Your task to perform on an android device: make emails show in primary in the gmail app Image 0: 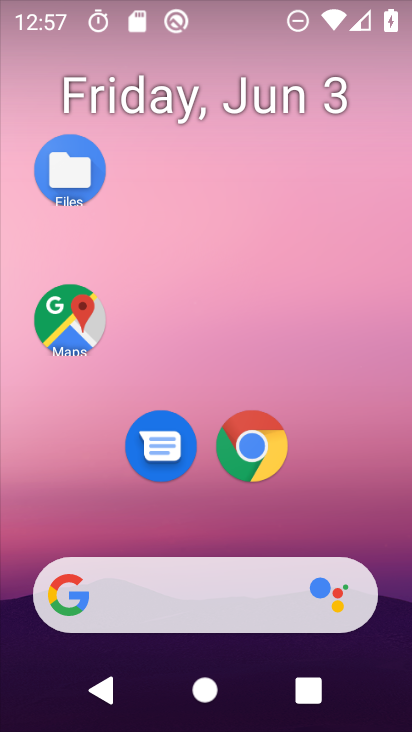
Step 0: drag from (242, 696) to (207, 182)
Your task to perform on an android device: make emails show in primary in the gmail app Image 1: 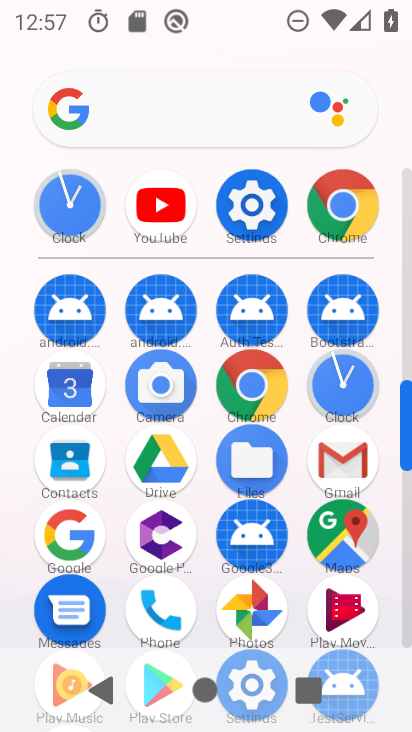
Step 1: drag from (234, 640) to (192, 112)
Your task to perform on an android device: make emails show in primary in the gmail app Image 2: 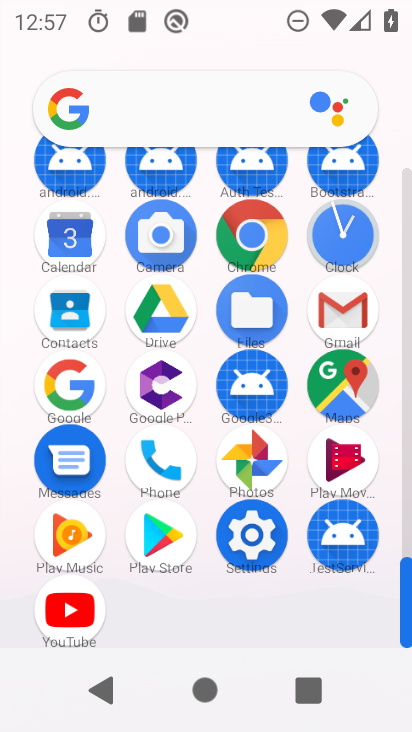
Step 2: click (352, 454)
Your task to perform on an android device: make emails show in primary in the gmail app Image 3: 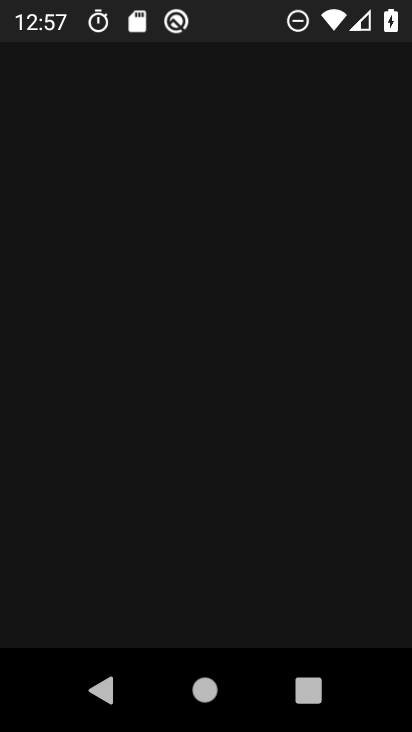
Step 3: click (349, 309)
Your task to perform on an android device: make emails show in primary in the gmail app Image 4: 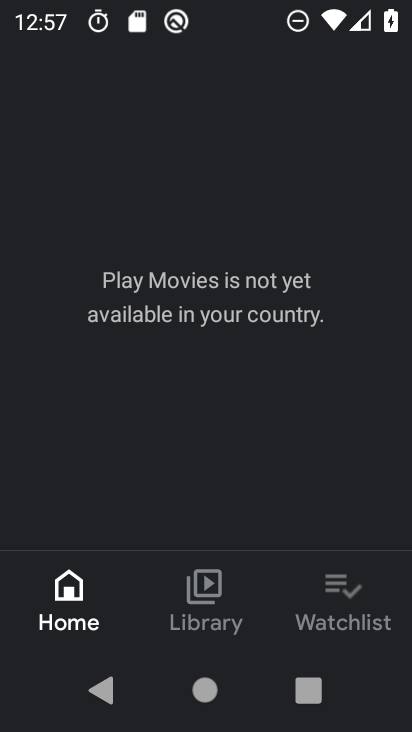
Step 4: press back button
Your task to perform on an android device: make emails show in primary in the gmail app Image 5: 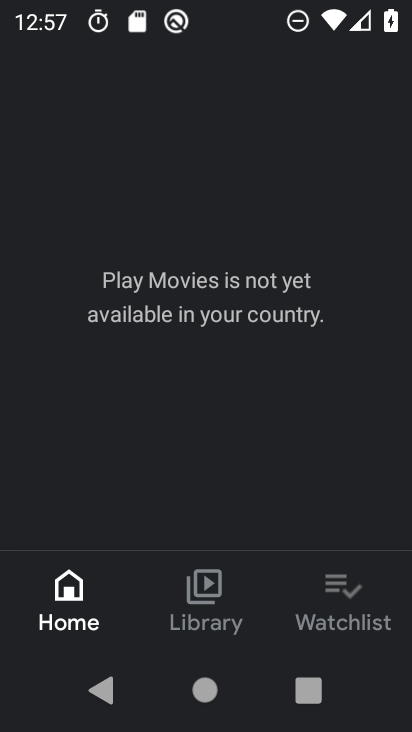
Step 5: press back button
Your task to perform on an android device: make emails show in primary in the gmail app Image 6: 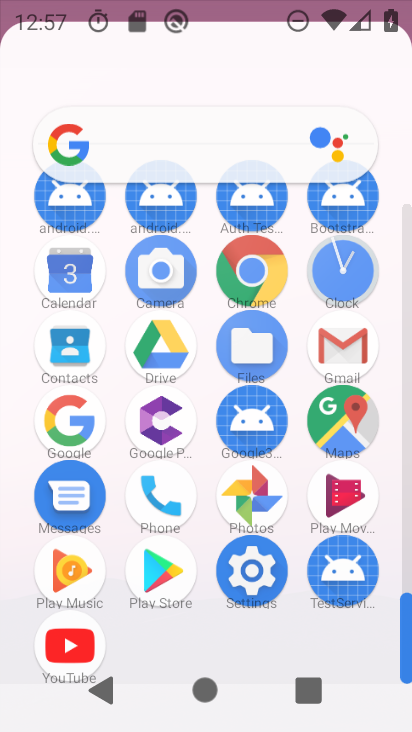
Step 6: press back button
Your task to perform on an android device: make emails show in primary in the gmail app Image 7: 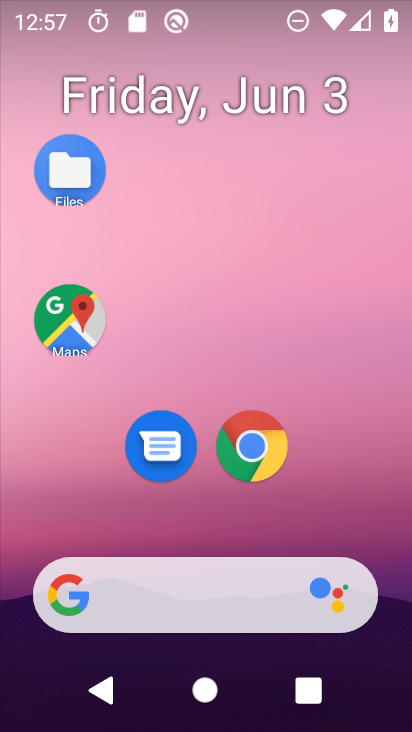
Step 7: drag from (232, 499) to (118, 77)
Your task to perform on an android device: make emails show in primary in the gmail app Image 8: 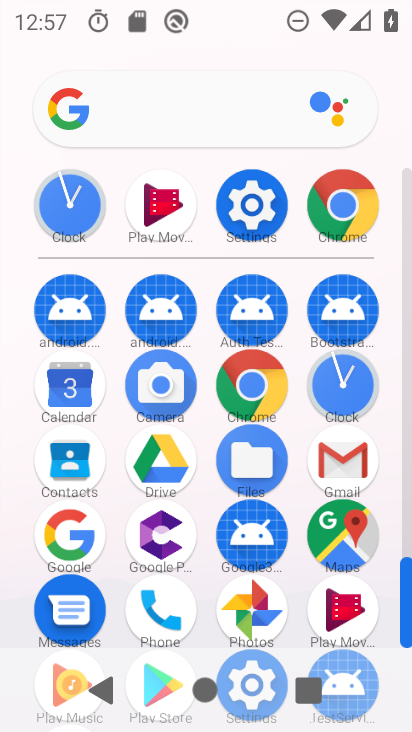
Step 8: drag from (154, 159) to (220, 125)
Your task to perform on an android device: make emails show in primary in the gmail app Image 9: 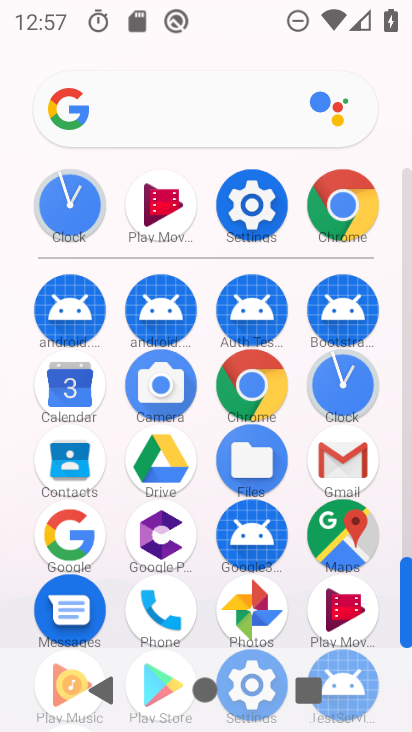
Step 9: drag from (191, 285) to (157, 135)
Your task to perform on an android device: make emails show in primary in the gmail app Image 10: 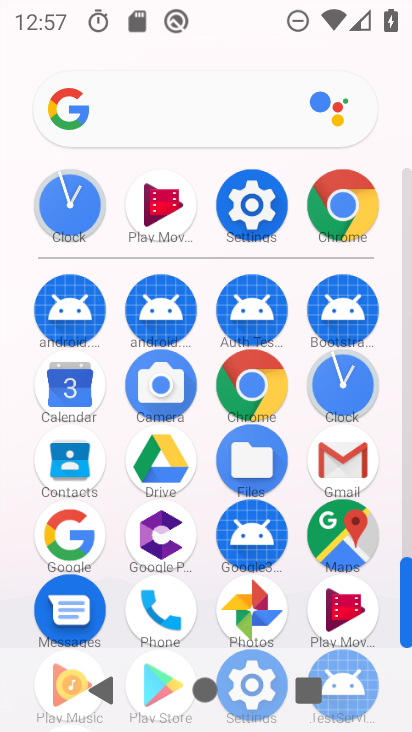
Step 10: click (340, 464)
Your task to perform on an android device: make emails show in primary in the gmail app Image 11: 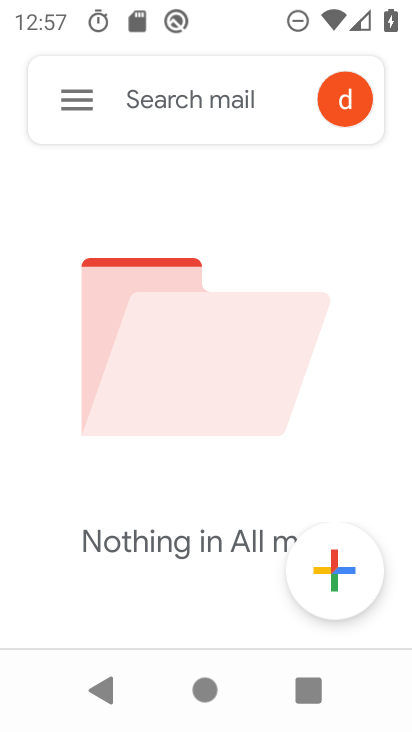
Step 11: click (340, 464)
Your task to perform on an android device: make emails show in primary in the gmail app Image 12: 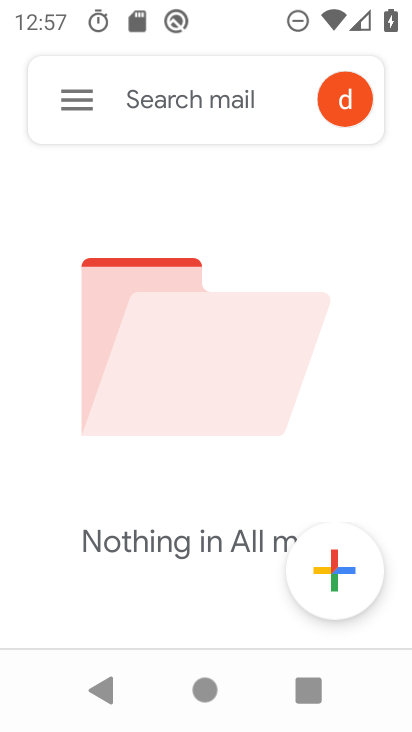
Step 12: click (340, 464)
Your task to perform on an android device: make emails show in primary in the gmail app Image 13: 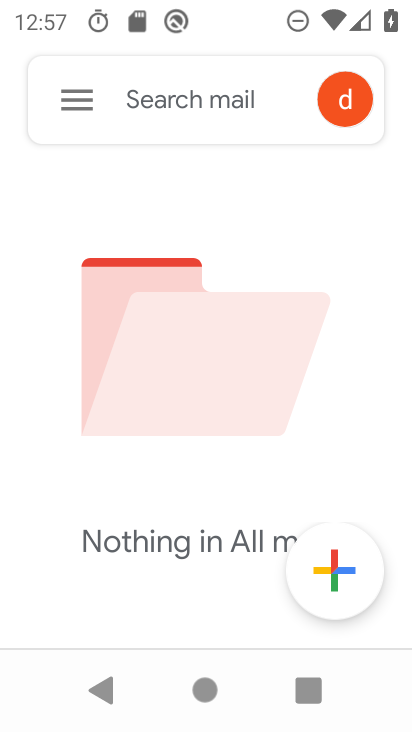
Step 13: click (79, 97)
Your task to perform on an android device: make emails show in primary in the gmail app Image 14: 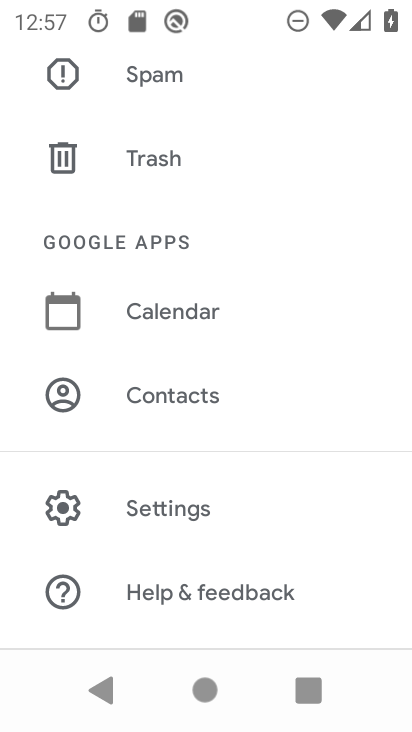
Step 14: click (74, 95)
Your task to perform on an android device: make emails show in primary in the gmail app Image 15: 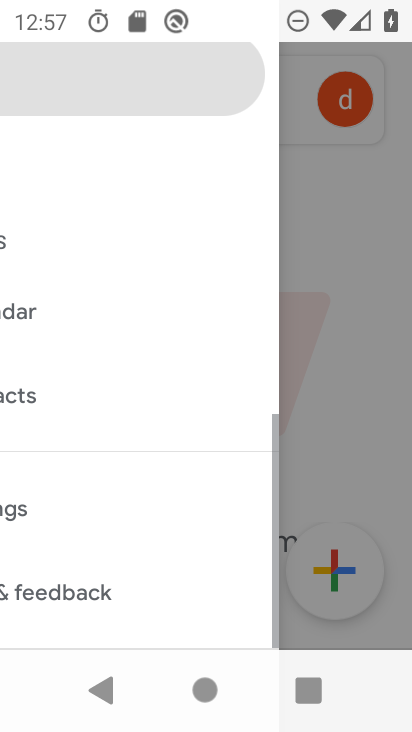
Step 15: click (75, 104)
Your task to perform on an android device: make emails show in primary in the gmail app Image 16: 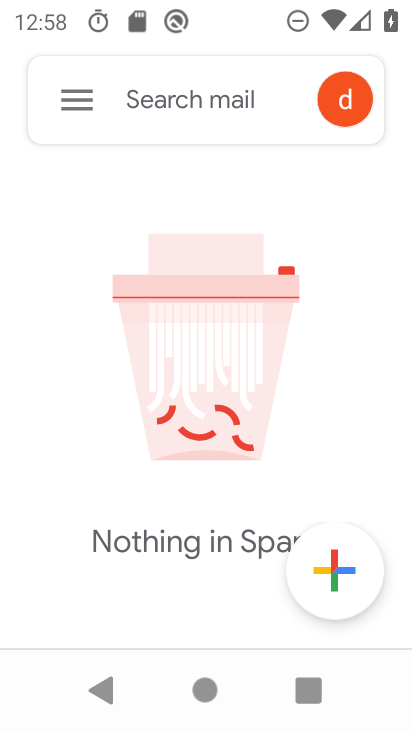
Step 16: click (73, 103)
Your task to perform on an android device: make emails show in primary in the gmail app Image 17: 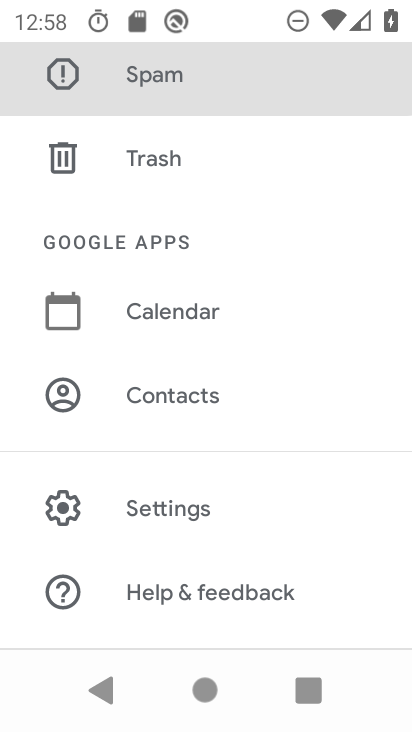
Step 17: click (157, 503)
Your task to perform on an android device: make emails show in primary in the gmail app Image 18: 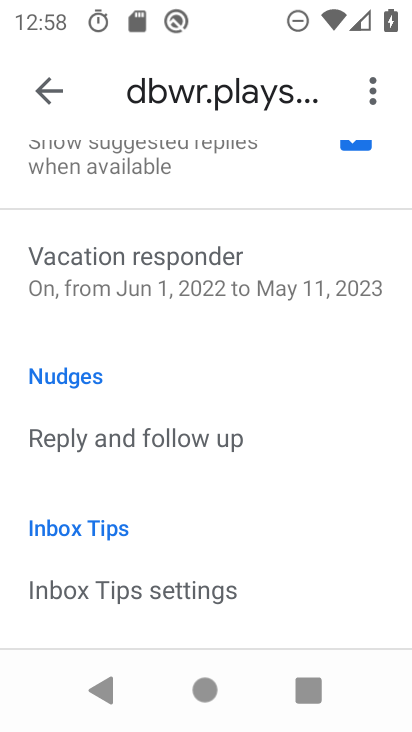
Step 18: drag from (145, 492) to (110, 279)
Your task to perform on an android device: make emails show in primary in the gmail app Image 19: 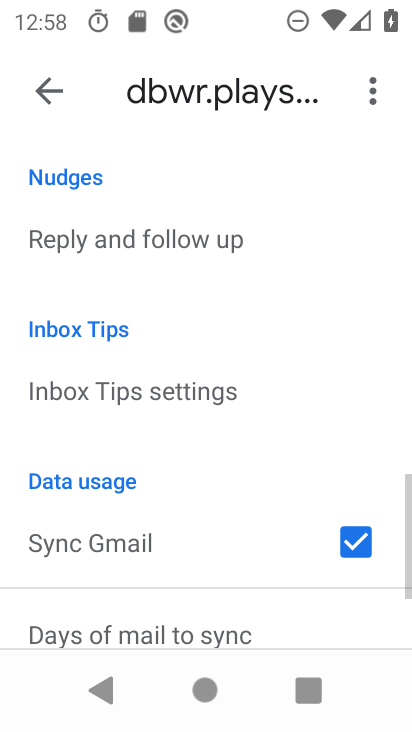
Step 19: drag from (169, 466) to (144, 216)
Your task to perform on an android device: make emails show in primary in the gmail app Image 20: 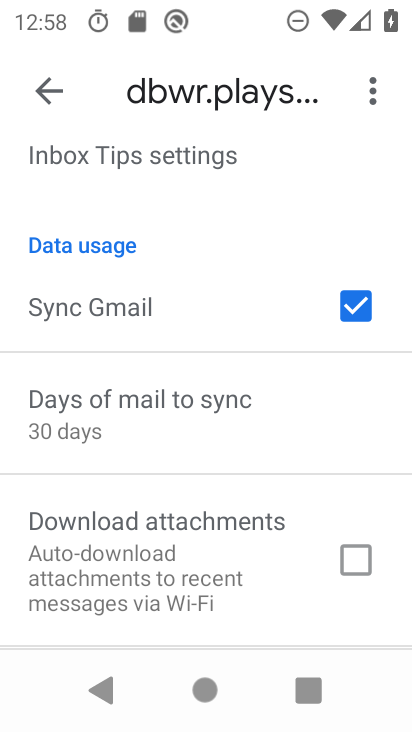
Step 20: drag from (177, 215) to (158, 265)
Your task to perform on an android device: make emails show in primary in the gmail app Image 21: 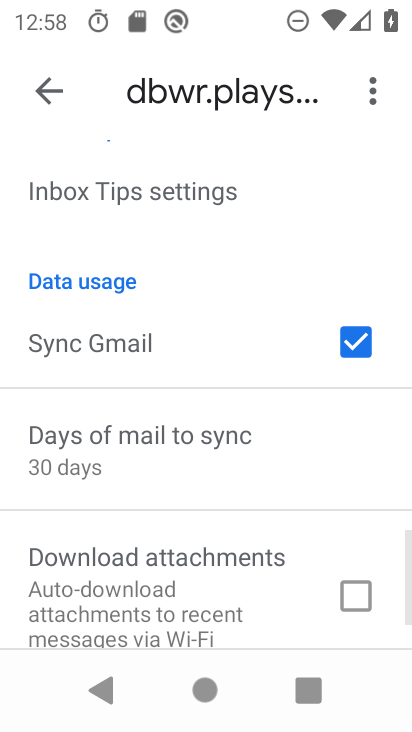
Step 21: drag from (158, 392) to (92, 212)
Your task to perform on an android device: make emails show in primary in the gmail app Image 22: 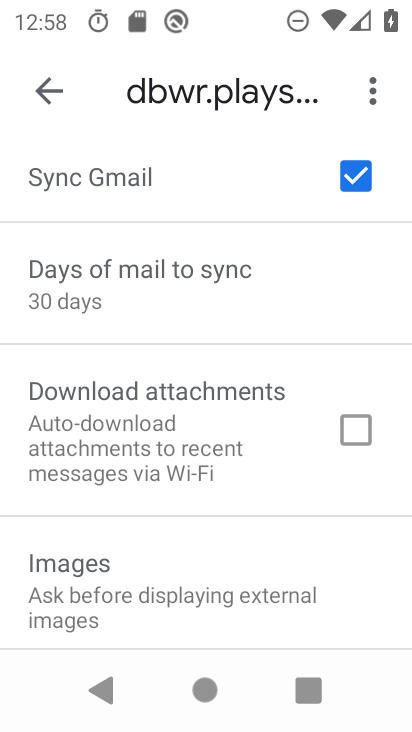
Step 22: drag from (97, 310) to (129, 504)
Your task to perform on an android device: make emails show in primary in the gmail app Image 23: 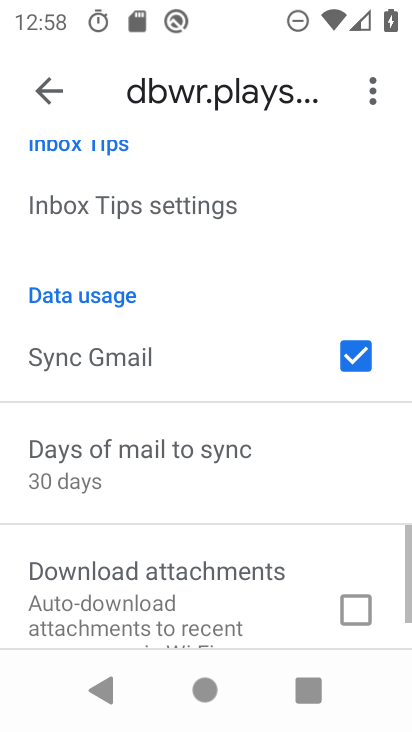
Step 23: drag from (78, 351) to (173, 626)
Your task to perform on an android device: make emails show in primary in the gmail app Image 24: 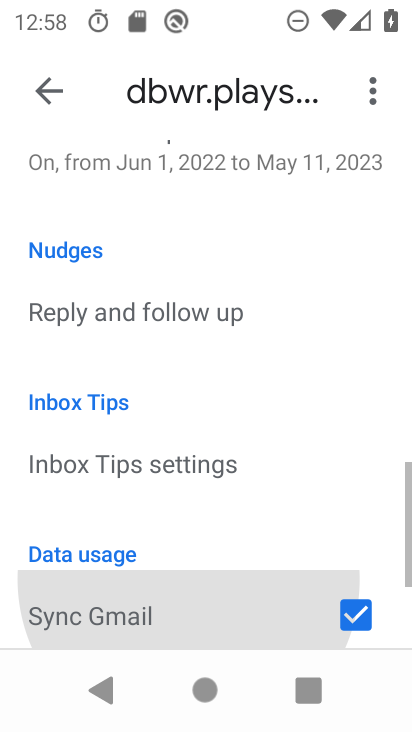
Step 24: drag from (140, 426) to (193, 601)
Your task to perform on an android device: make emails show in primary in the gmail app Image 25: 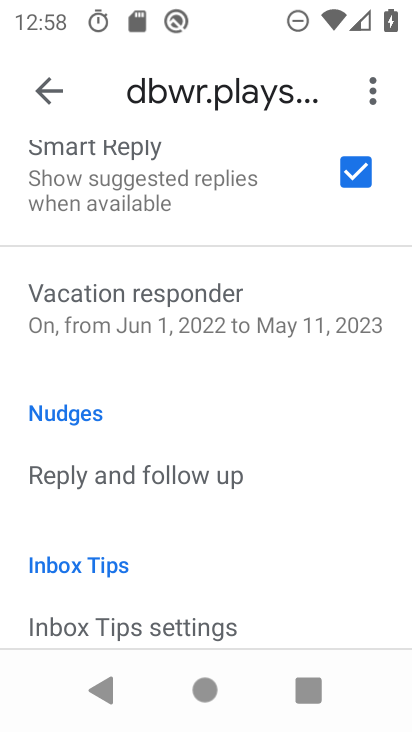
Step 25: drag from (112, 265) to (166, 551)
Your task to perform on an android device: make emails show in primary in the gmail app Image 26: 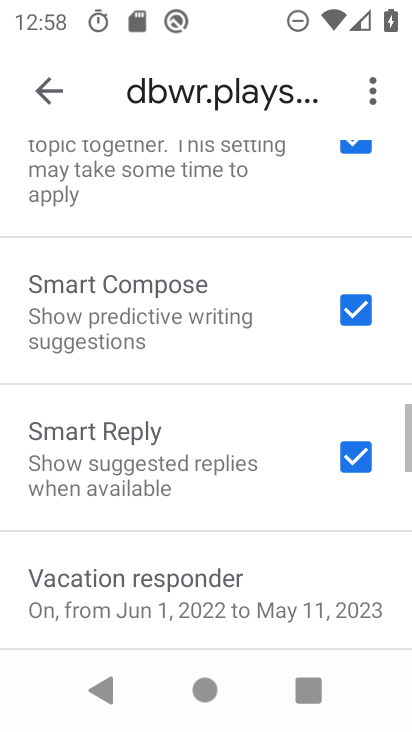
Step 26: drag from (162, 487) to (170, 522)
Your task to perform on an android device: make emails show in primary in the gmail app Image 27: 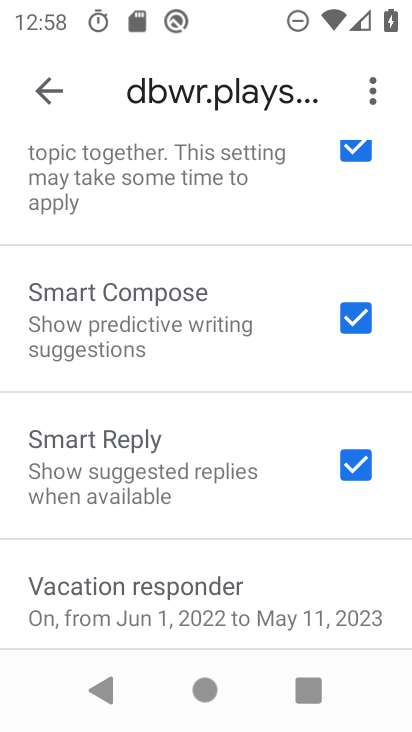
Step 27: drag from (200, 535) to (251, 587)
Your task to perform on an android device: make emails show in primary in the gmail app Image 28: 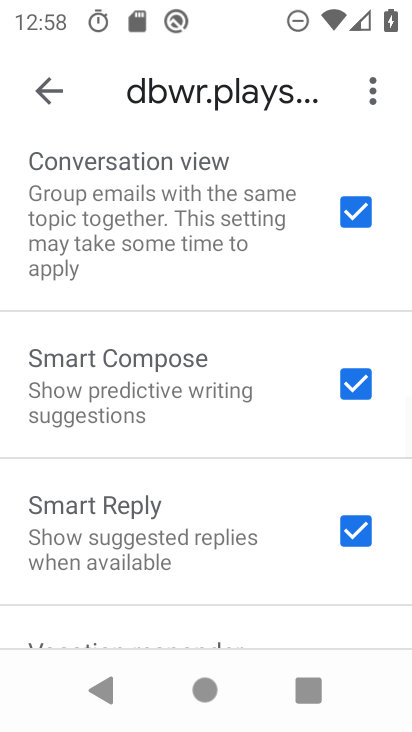
Step 28: drag from (126, 260) to (190, 513)
Your task to perform on an android device: make emails show in primary in the gmail app Image 29: 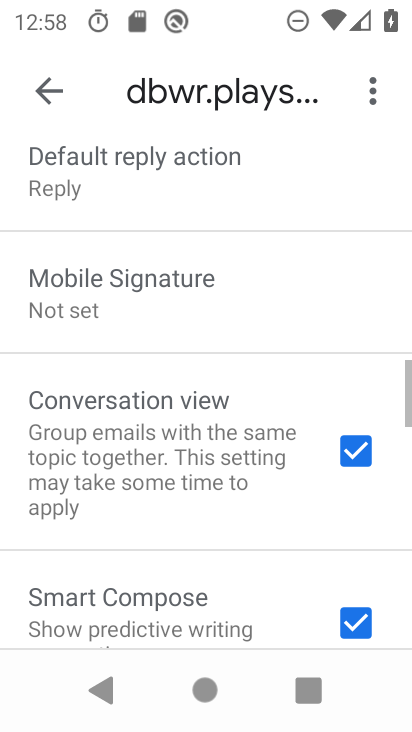
Step 29: drag from (152, 323) to (188, 532)
Your task to perform on an android device: make emails show in primary in the gmail app Image 30: 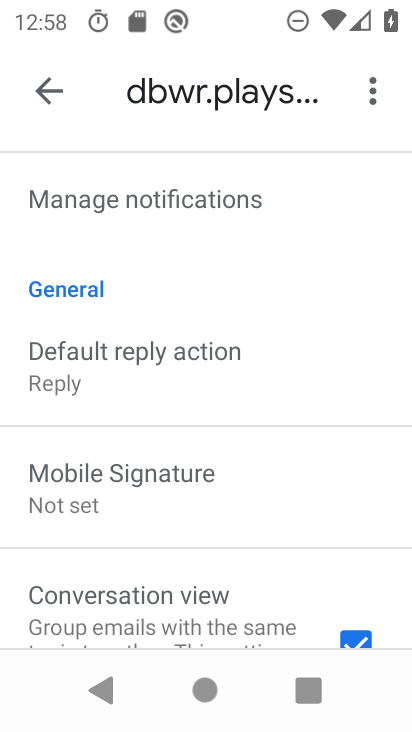
Step 30: drag from (137, 262) to (219, 598)
Your task to perform on an android device: make emails show in primary in the gmail app Image 31: 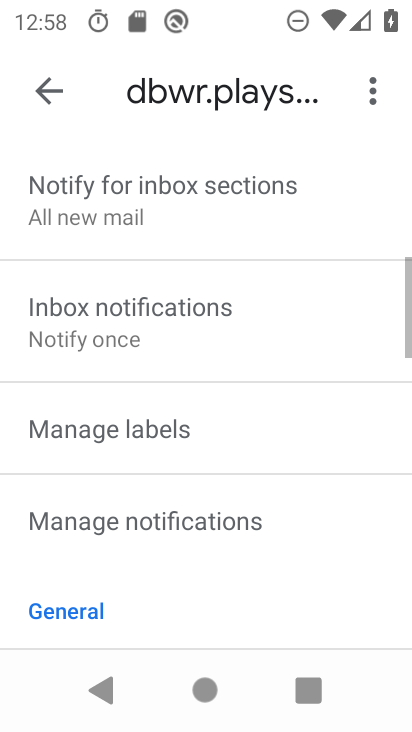
Step 31: drag from (197, 379) to (202, 499)
Your task to perform on an android device: make emails show in primary in the gmail app Image 32: 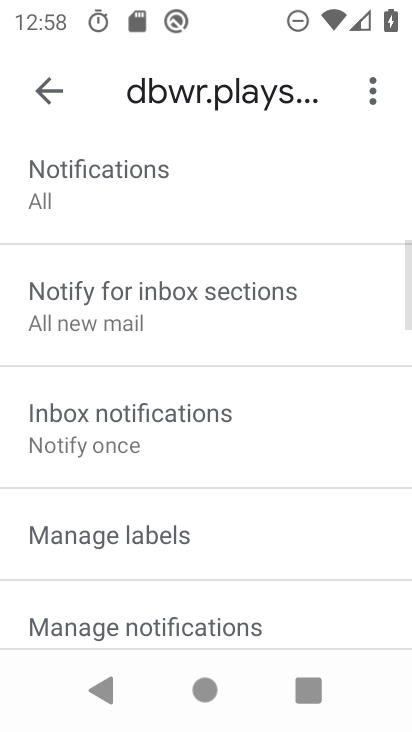
Step 32: drag from (171, 316) to (218, 567)
Your task to perform on an android device: make emails show in primary in the gmail app Image 33: 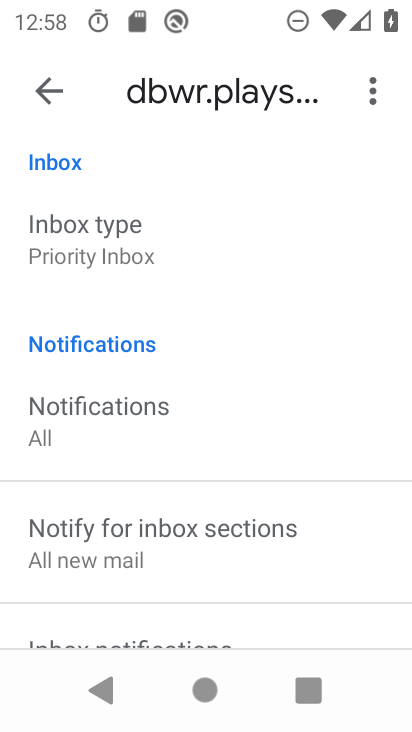
Step 33: click (62, 241)
Your task to perform on an android device: make emails show in primary in the gmail app Image 34: 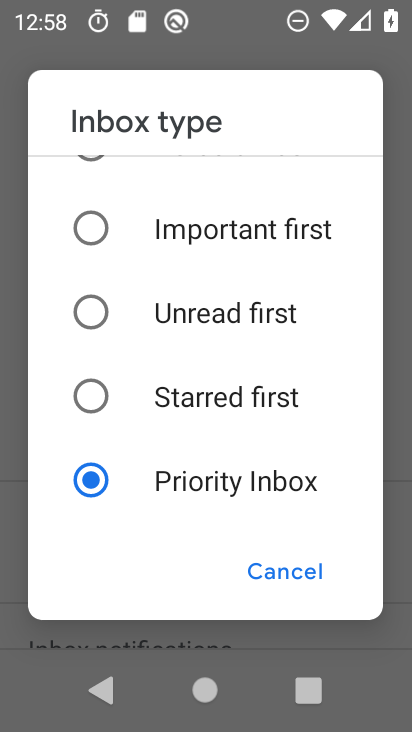
Step 34: drag from (146, 298) to (183, 440)
Your task to perform on an android device: make emails show in primary in the gmail app Image 35: 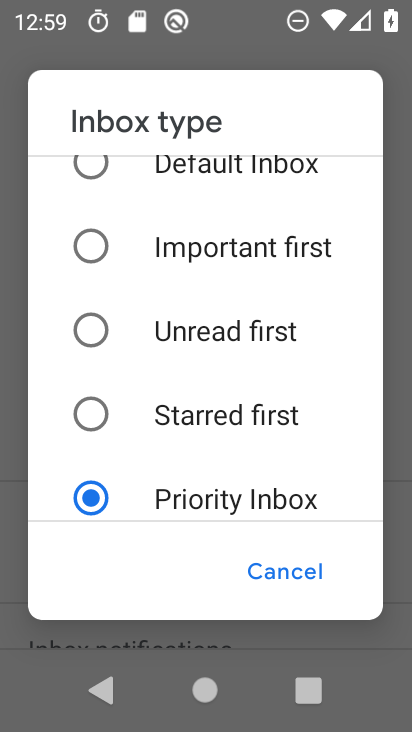
Step 35: drag from (158, 427) to (188, 471)
Your task to perform on an android device: make emails show in primary in the gmail app Image 36: 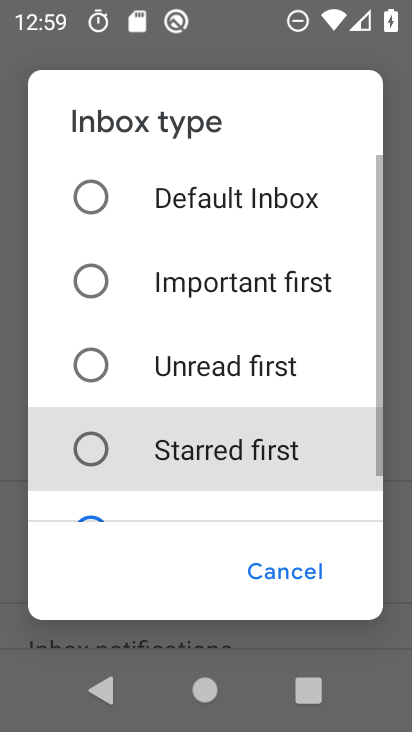
Step 36: drag from (146, 228) to (190, 417)
Your task to perform on an android device: make emails show in primary in the gmail app Image 37: 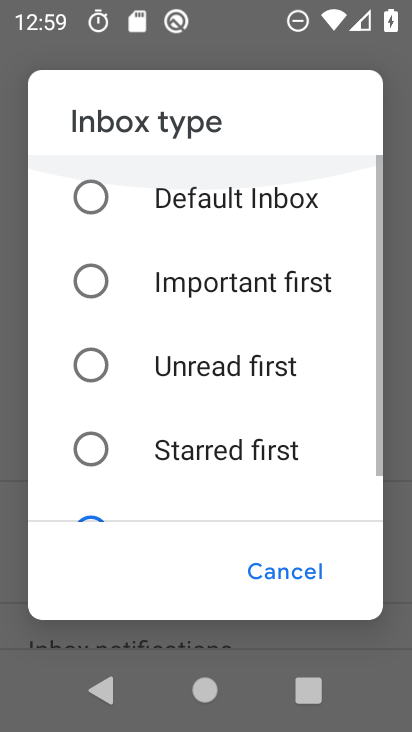
Step 37: drag from (214, 183) to (232, 314)
Your task to perform on an android device: make emails show in primary in the gmail app Image 38: 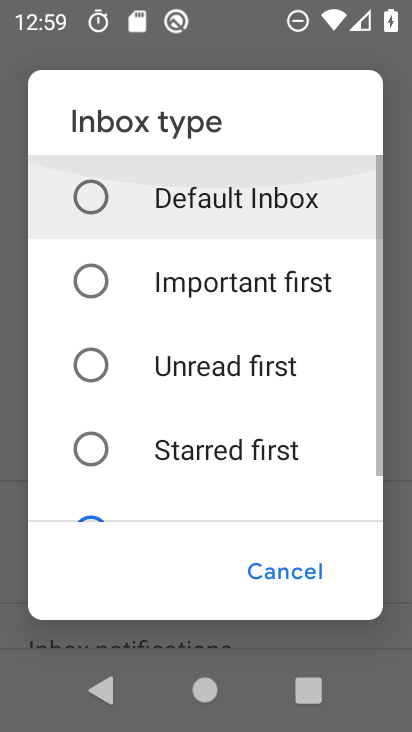
Step 38: drag from (151, 332) to (151, 399)
Your task to perform on an android device: make emails show in primary in the gmail app Image 39: 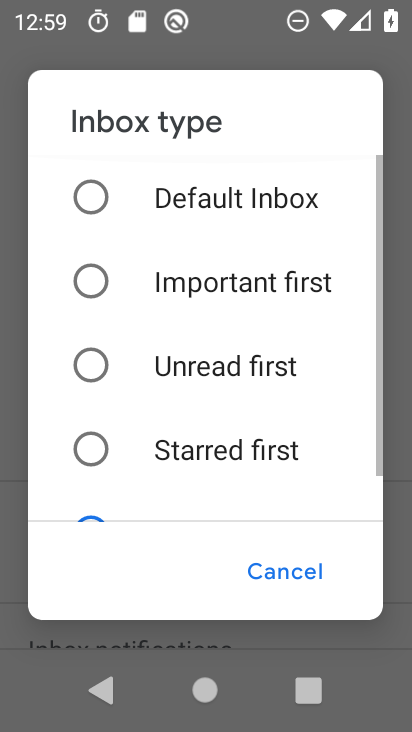
Step 39: drag from (100, 240) to (146, 484)
Your task to perform on an android device: make emails show in primary in the gmail app Image 40: 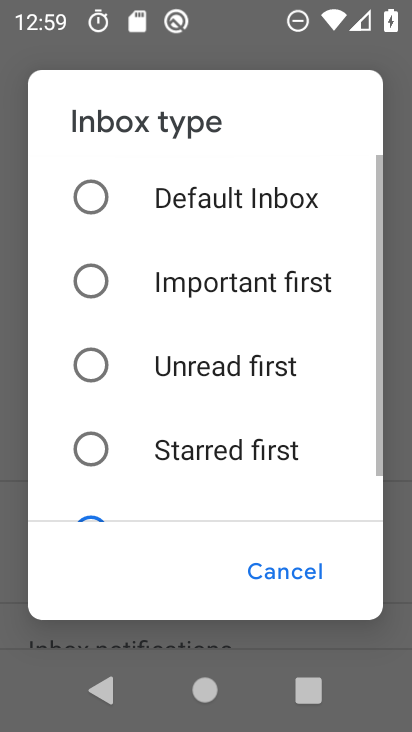
Step 40: drag from (79, 198) to (108, 405)
Your task to perform on an android device: make emails show in primary in the gmail app Image 41: 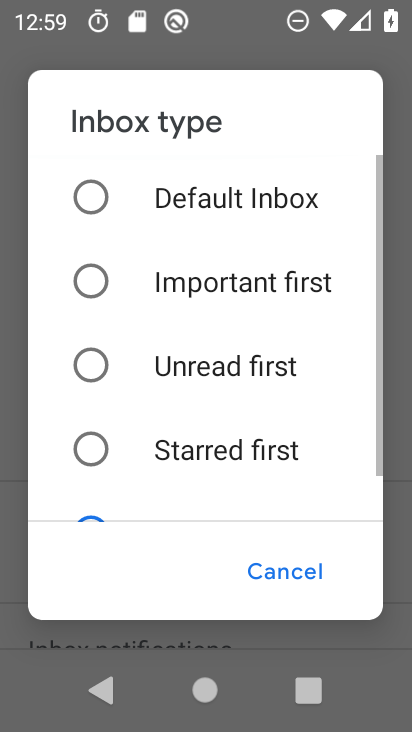
Step 41: click (88, 179)
Your task to perform on an android device: make emails show in primary in the gmail app Image 42: 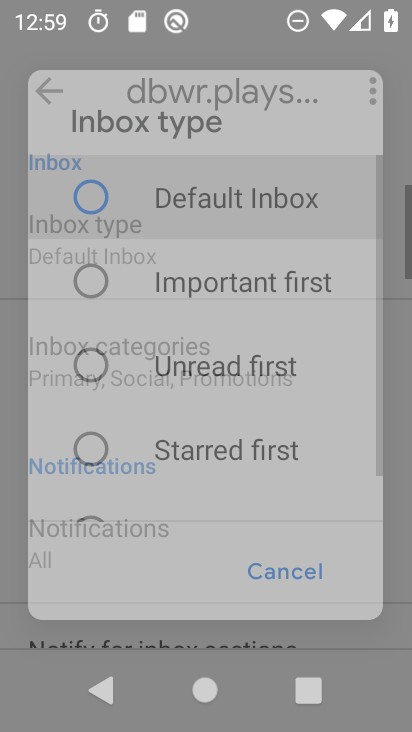
Step 42: click (92, 187)
Your task to perform on an android device: make emails show in primary in the gmail app Image 43: 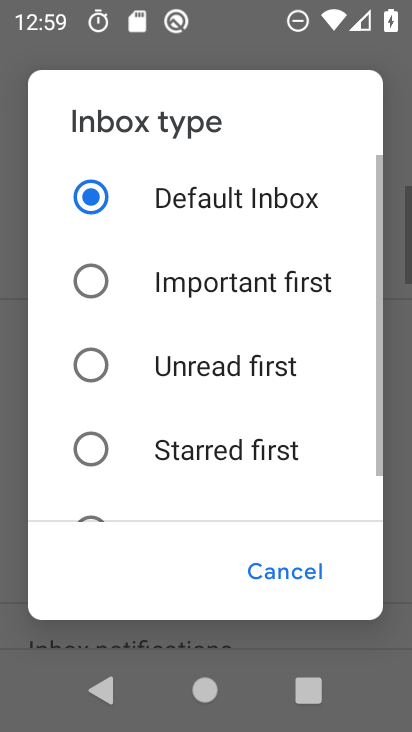
Step 43: click (82, 201)
Your task to perform on an android device: make emails show in primary in the gmail app Image 44: 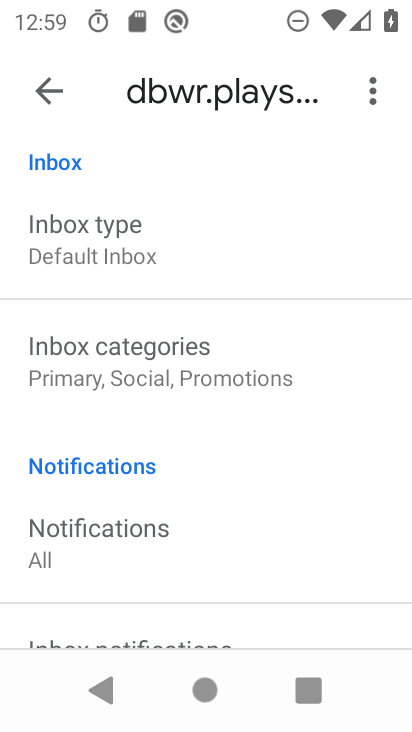
Step 44: click (292, 564)
Your task to perform on an android device: make emails show in primary in the gmail app Image 45: 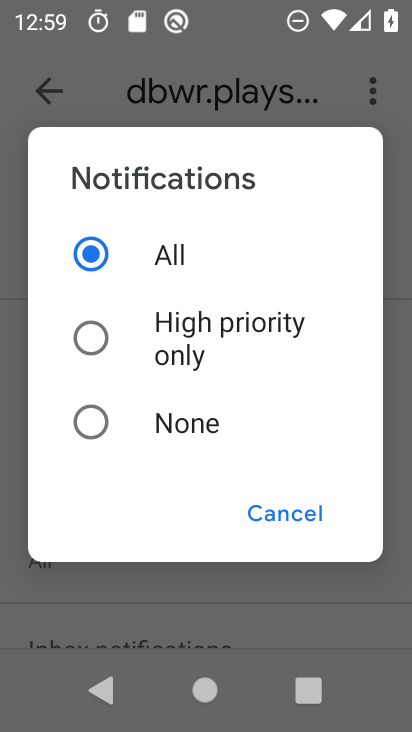
Step 45: click (286, 505)
Your task to perform on an android device: make emails show in primary in the gmail app Image 46: 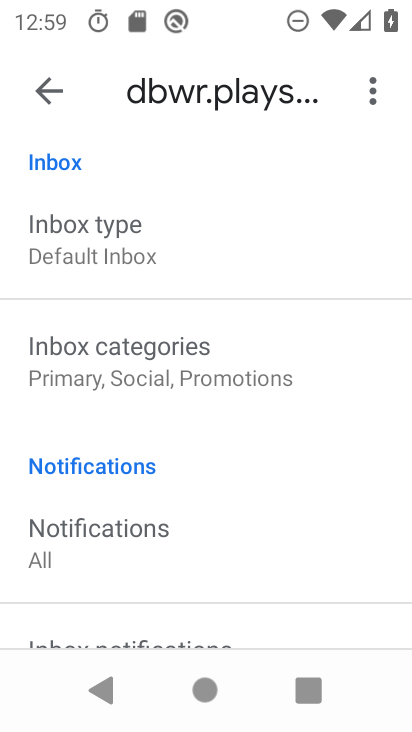
Step 46: click (109, 359)
Your task to perform on an android device: make emails show in primary in the gmail app Image 47: 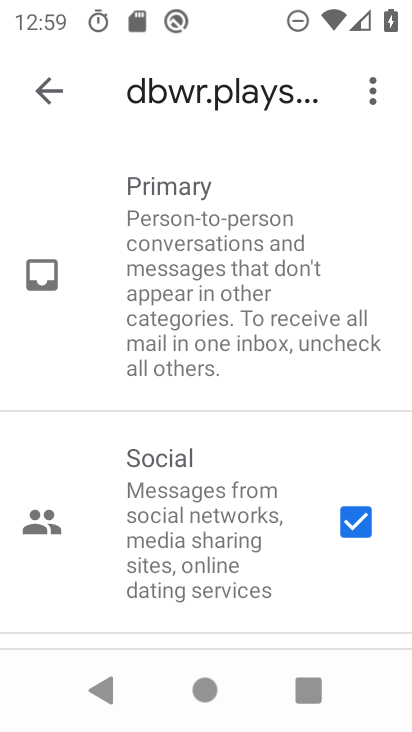
Step 47: click (185, 305)
Your task to perform on an android device: make emails show in primary in the gmail app Image 48: 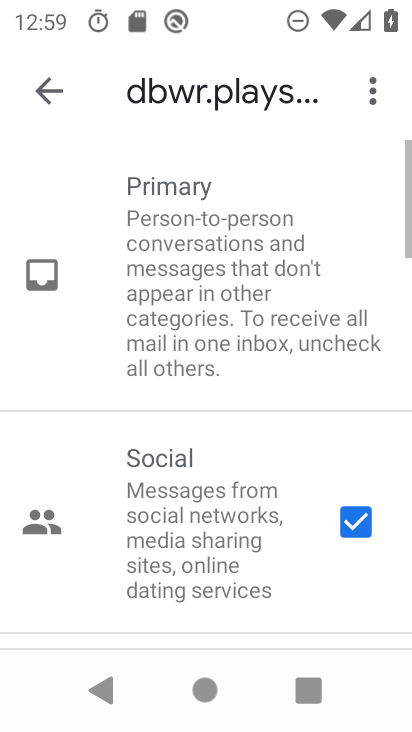
Step 48: task complete